Your task to perform on an android device: Open Maps and search for coffee Image 0: 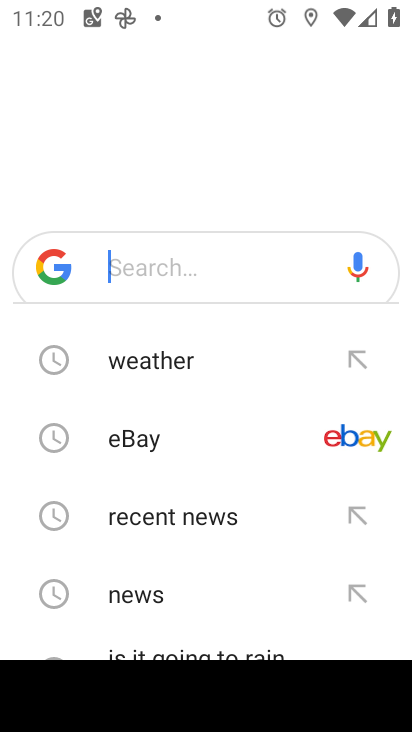
Step 0: press home button
Your task to perform on an android device: Open Maps and search for coffee Image 1: 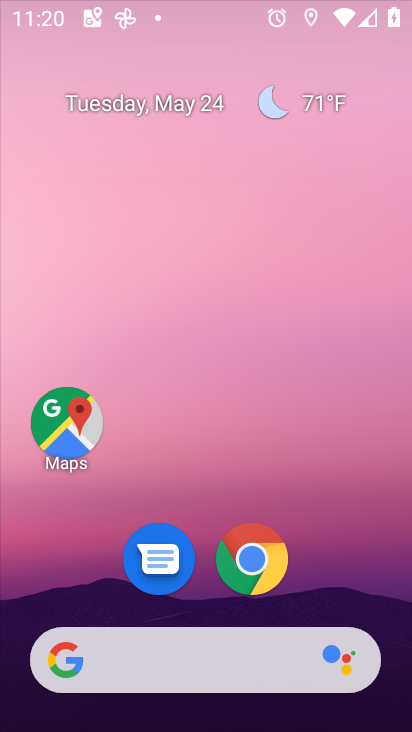
Step 1: drag from (376, 536) to (235, 37)
Your task to perform on an android device: Open Maps and search for coffee Image 2: 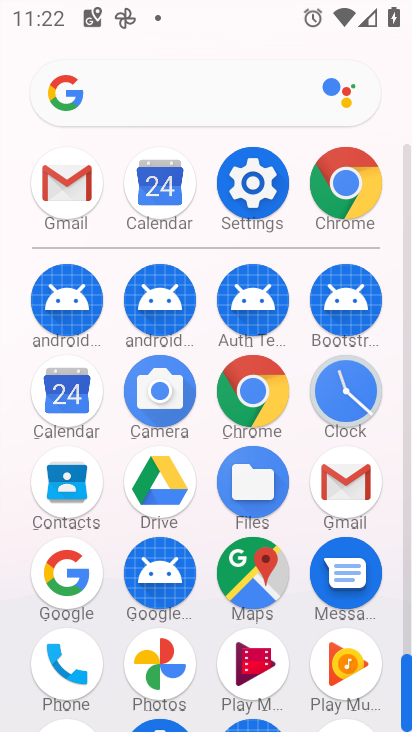
Step 2: click (238, 582)
Your task to perform on an android device: Open Maps and search for coffee Image 3: 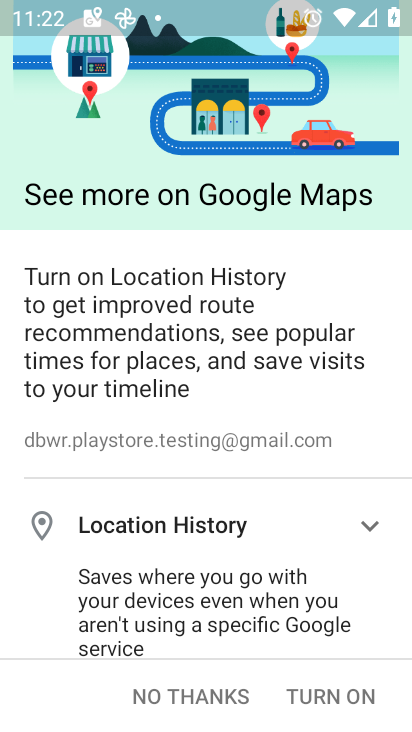
Step 3: click (210, 700)
Your task to perform on an android device: Open Maps and search for coffee Image 4: 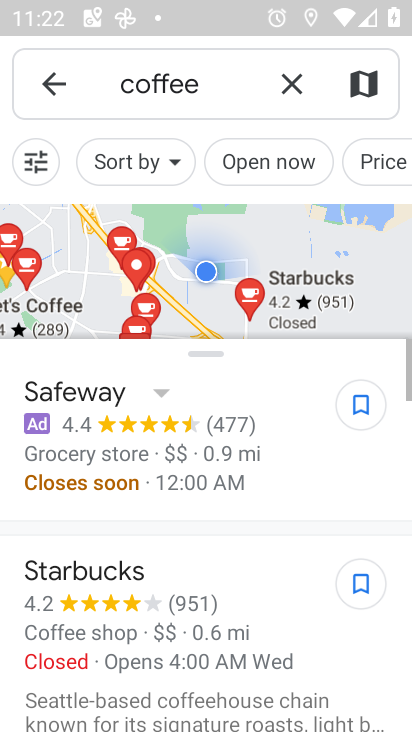
Step 4: task complete